Your task to perform on an android device: change the clock display to digital Image 0: 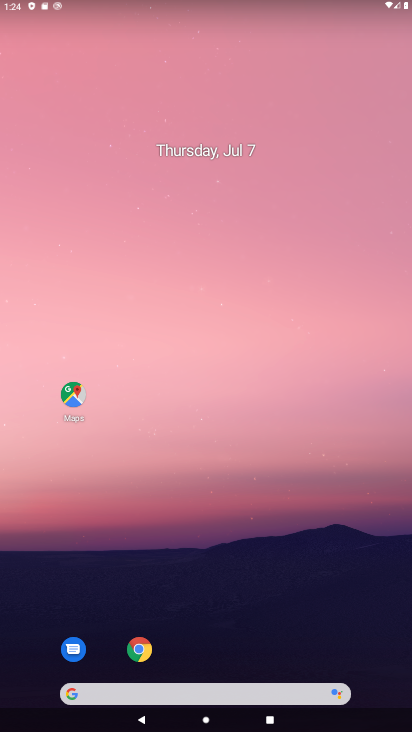
Step 0: drag from (377, 650) to (348, 118)
Your task to perform on an android device: change the clock display to digital Image 1: 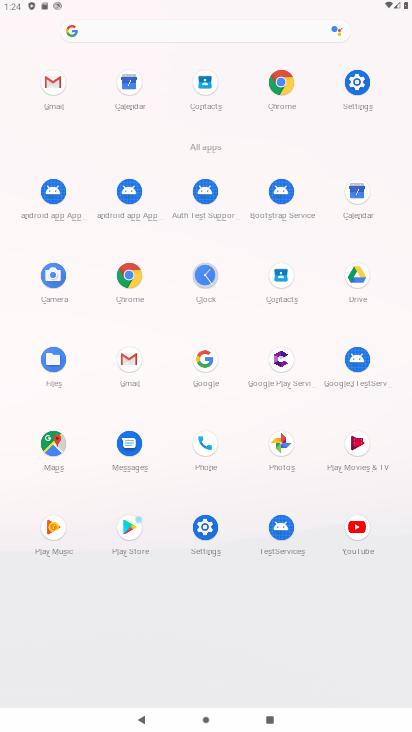
Step 1: click (206, 277)
Your task to perform on an android device: change the clock display to digital Image 2: 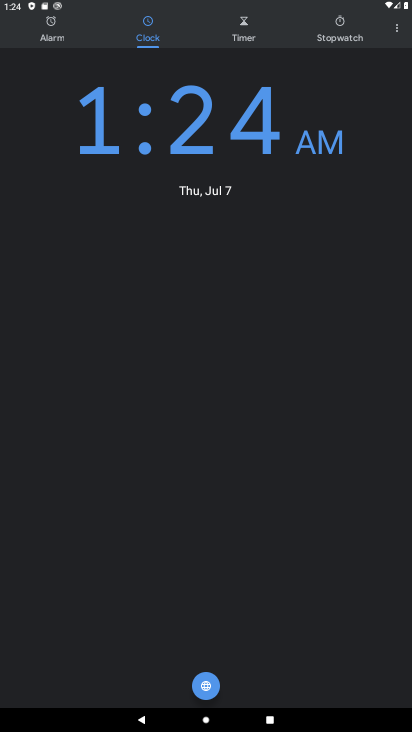
Step 2: click (393, 33)
Your task to perform on an android device: change the clock display to digital Image 3: 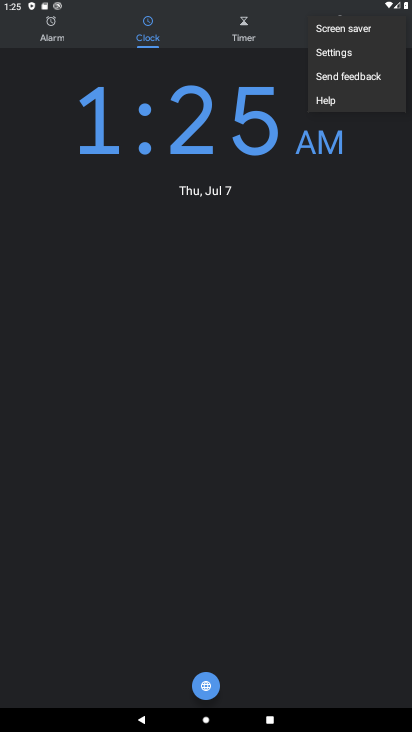
Step 3: click (328, 45)
Your task to perform on an android device: change the clock display to digital Image 4: 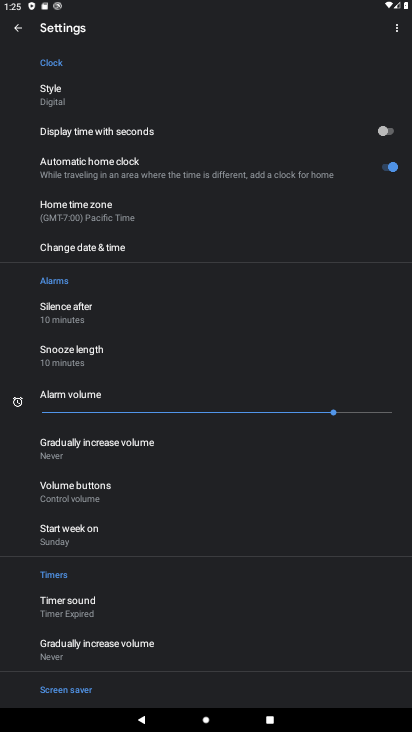
Step 4: click (47, 94)
Your task to perform on an android device: change the clock display to digital Image 5: 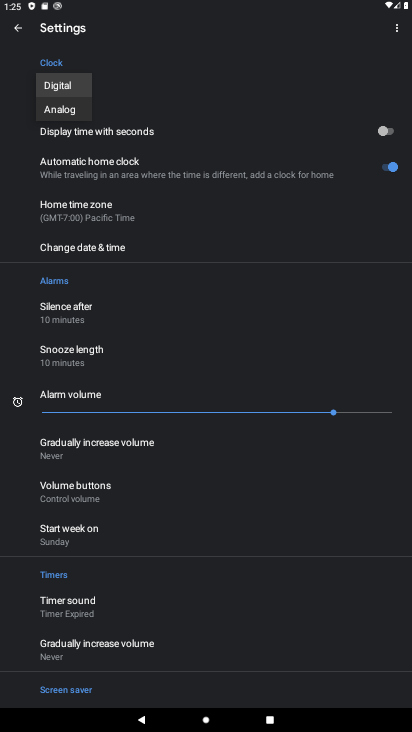
Step 5: task complete